Your task to perform on an android device: Open Android settings Image 0: 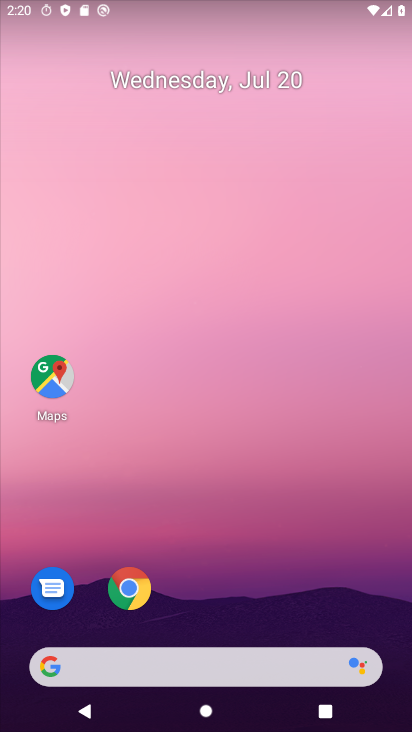
Step 0: drag from (186, 630) to (284, 7)
Your task to perform on an android device: Open Android settings Image 1: 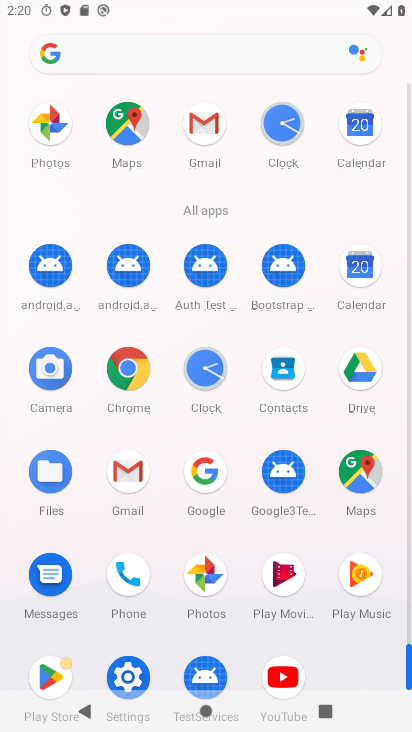
Step 1: click (133, 676)
Your task to perform on an android device: Open Android settings Image 2: 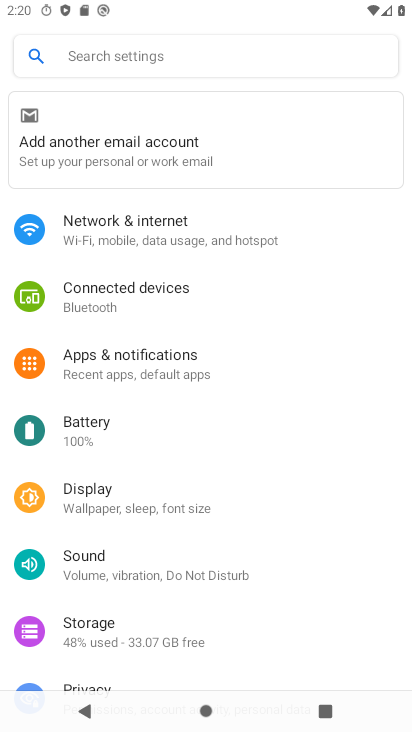
Step 2: drag from (203, 611) to (386, 25)
Your task to perform on an android device: Open Android settings Image 3: 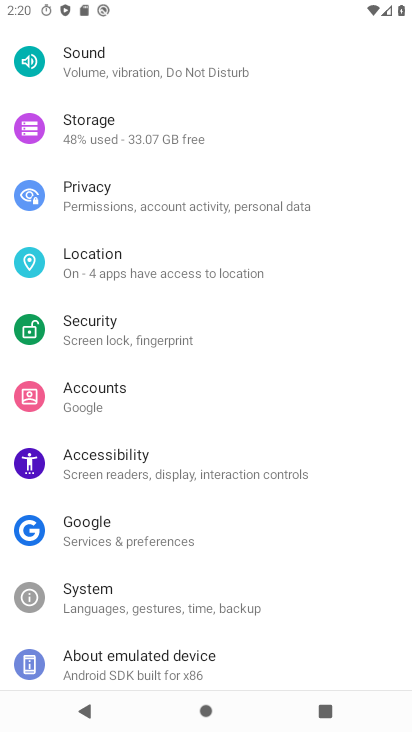
Step 3: drag from (202, 616) to (347, 90)
Your task to perform on an android device: Open Android settings Image 4: 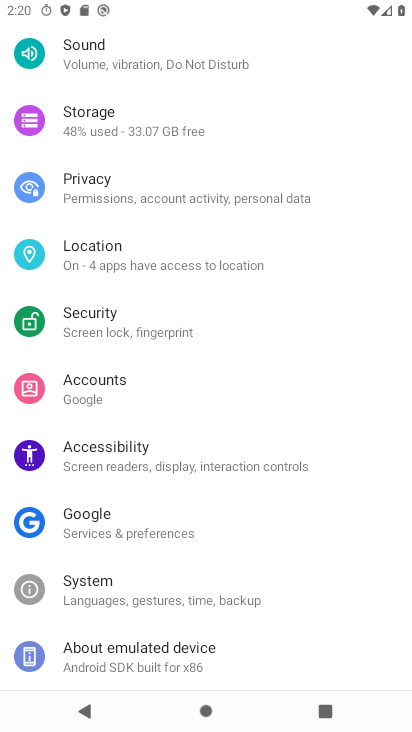
Step 4: click (140, 662)
Your task to perform on an android device: Open Android settings Image 5: 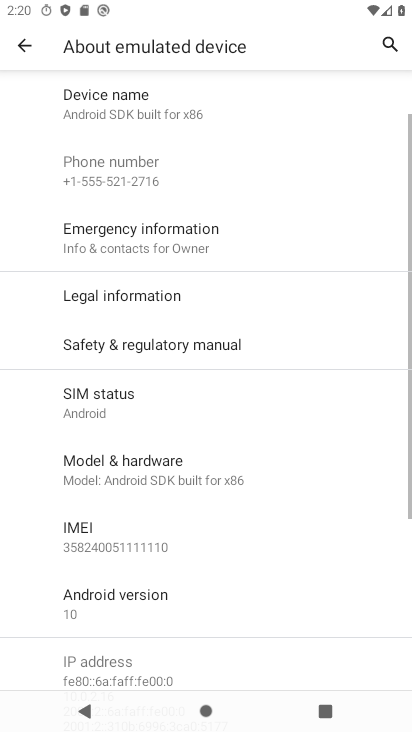
Step 5: drag from (160, 635) to (243, 106)
Your task to perform on an android device: Open Android settings Image 6: 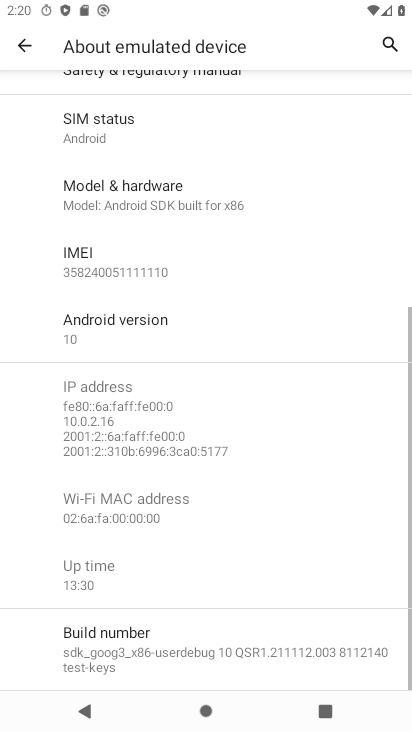
Step 6: click (159, 326)
Your task to perform on an android device: Open Android settings Image 7: 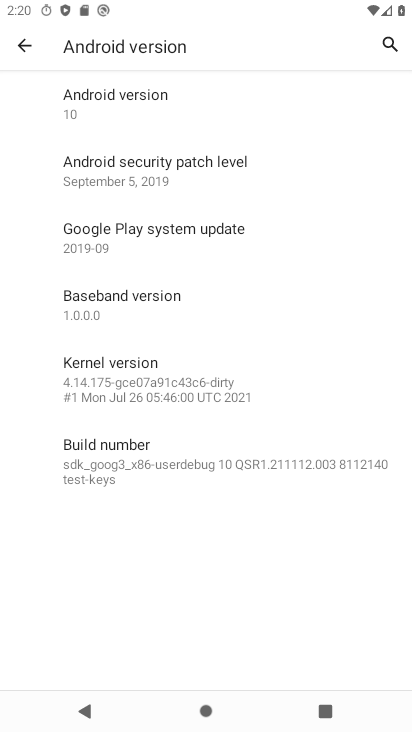
Step 7: click (159, 118)
Your task to perform on an android device: Open Android settings Image 8: 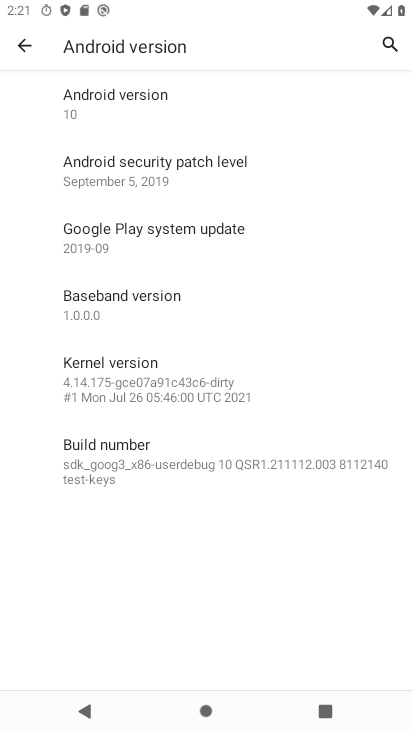
Step 8: task complete